Your task to perform on an android device: make emails show in primary in the gmail app Image 0: 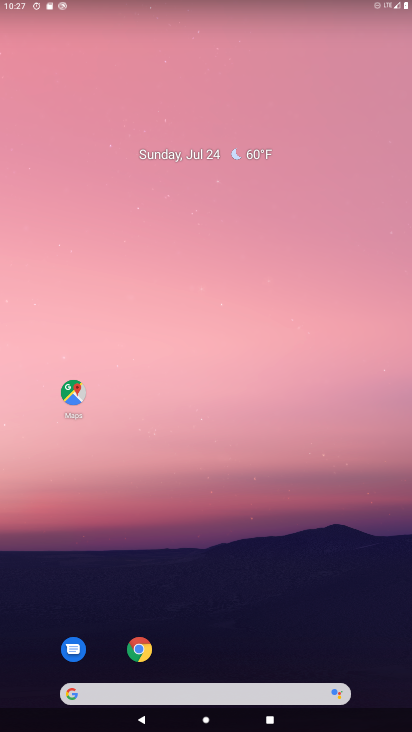
Step 0: drag from (316, 444) to (310, 33)
Your task to perform on an android device: make emails show in primary in the gmail app Image 1: 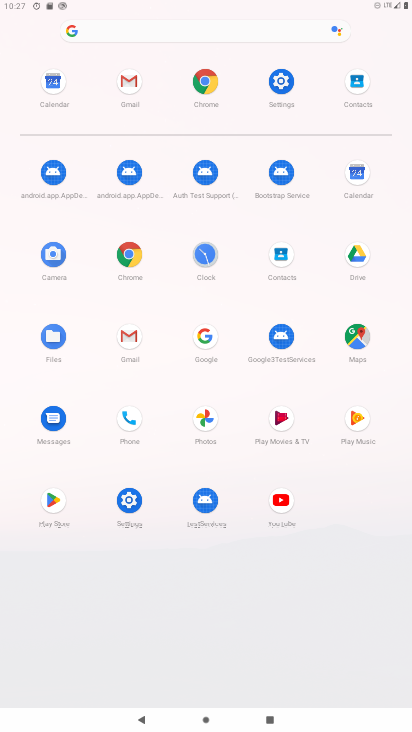
Step 1: click (133, 338)
Your task to perform on an android device: make emails show in primary in the gmail app Image 2: 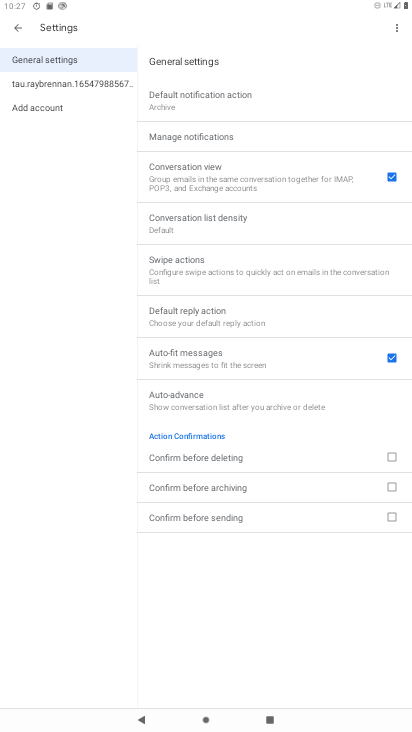
Step 2: click (20, 35)
Your task to perform on an android device: make emails show in primary in the gmail app Image 3: 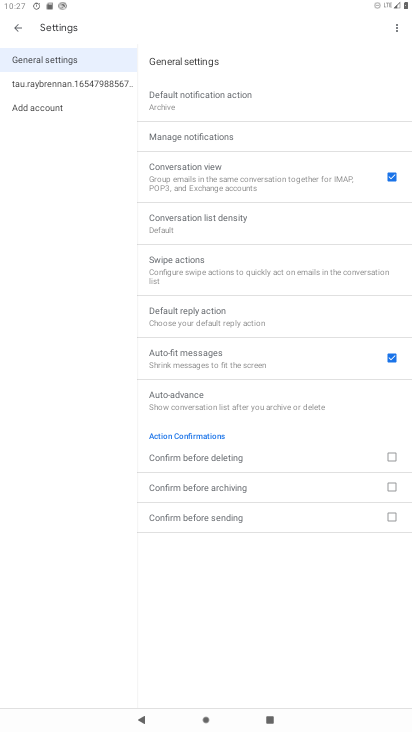
Step 3: click (22, 28)
Your task to perform on an android device: make emails show in primary in the gmail app Image 4: 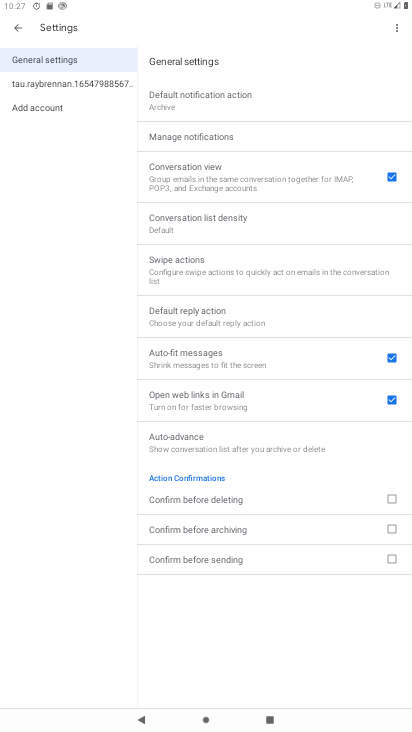
Step 4: click (23, 27)
Your task to perform on an android device: make emails show in primary in the gmail app Image 5: 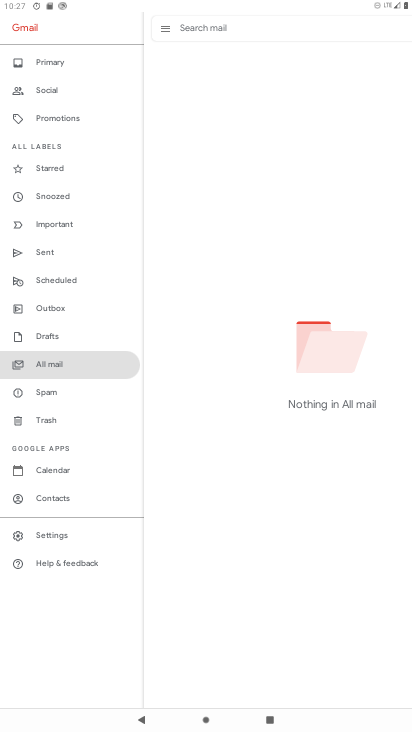
Step 5: click (55, 530)
Your task to perform on an android device: make emails show in primary in the gmail app Image 6: 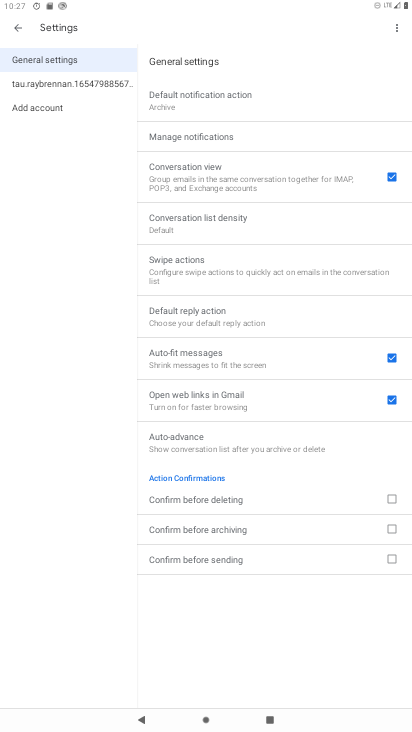
Step 6: click (92, 83)
Your task to perform on an android device: make emails show in primary in the gmail app Image 7: 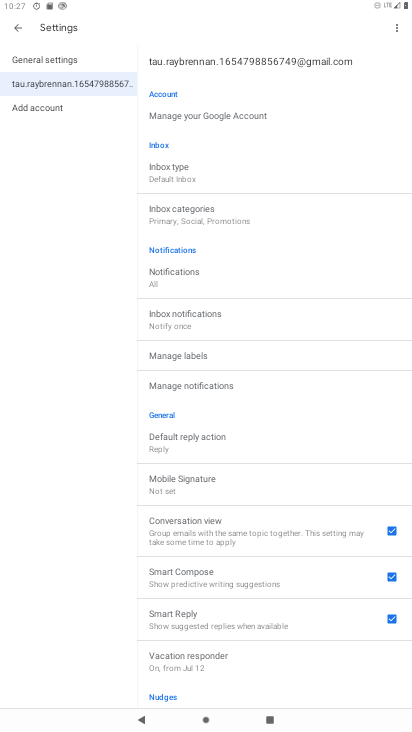
Step 7: click (198, 220)
Your task to perform on an android device: make emails show in primary in the gmail app Image 8: 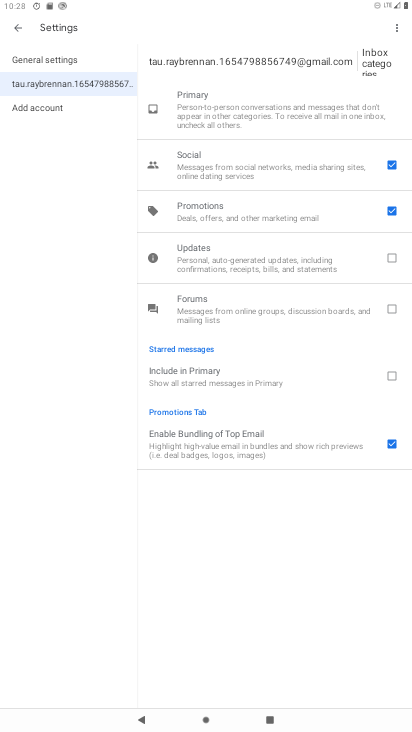
Step 8: task complete